Your task to perform on an android device: Open maps Image 0: 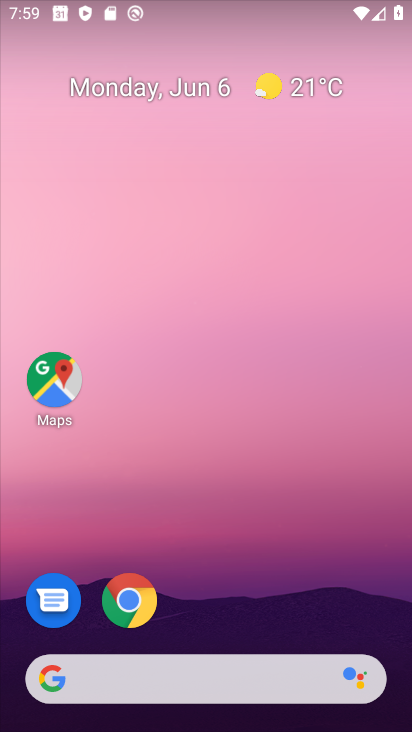
Step 0: click (56, 369)
Your task to perform on an android device: Open maps Image 1: 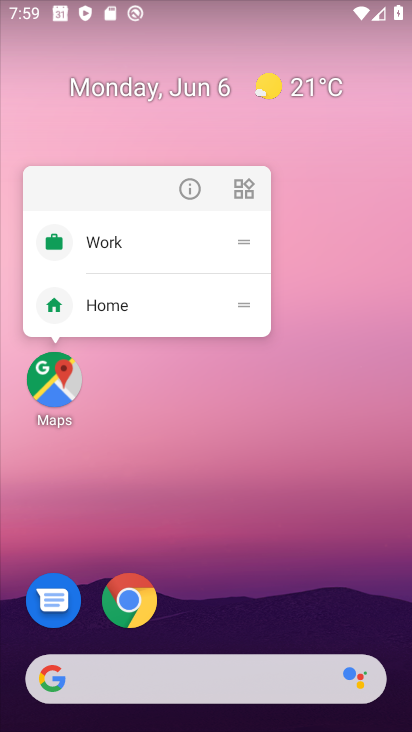
Step 1: click (55, 373)
Your task to perform on an android device: Open maps Image 2: 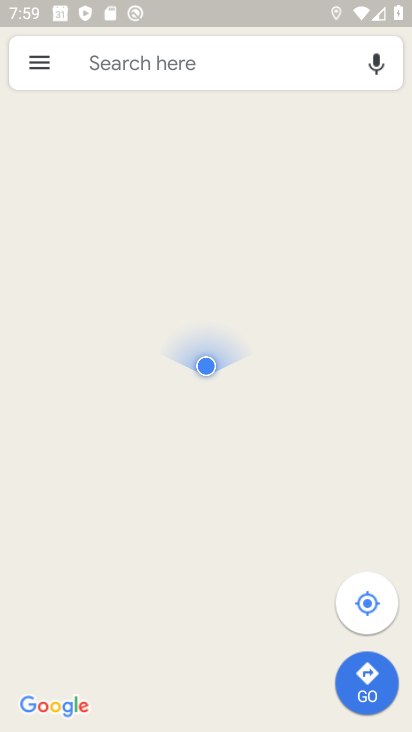
Step 2: task complete